Your task to perform on an android device: Open settings on Google Maps Image 0: 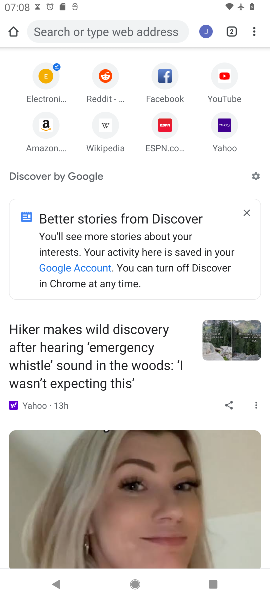
Step 0: press home button
Your task to perform on an android device: Open settings on Google Maps Image 1: 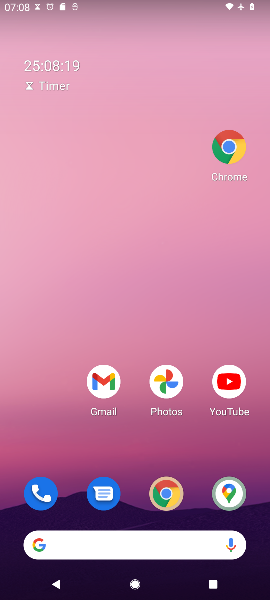
Step 1: drag from (50, 418) to (151, 14)
Your task to perform on an android device: Open settings on Google Maps Image 2: 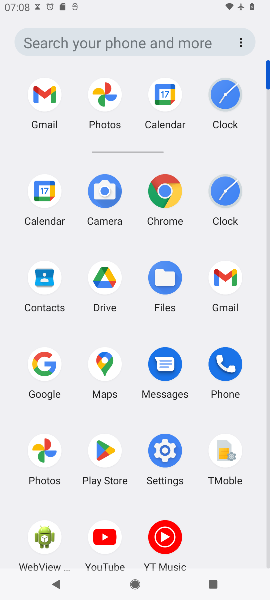
Step 2: click (101, 368)
Your task to perform on an android device: Open settings on Google Maps Image 3: 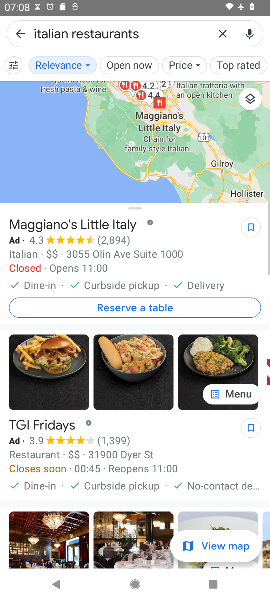
Step 3: click (23, 31)
Your task to perform on an android device: Open settings on Google Maps Image 4: 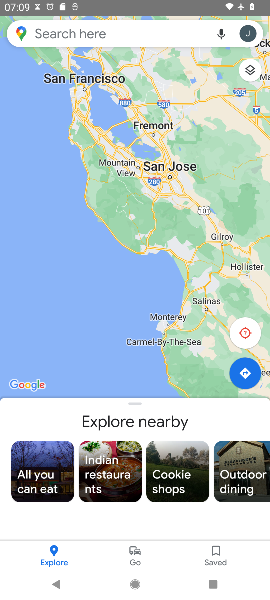
Step 4: task complete